Your task to perform on an android device: Search for Mexican restaurants on Maps Image 0: 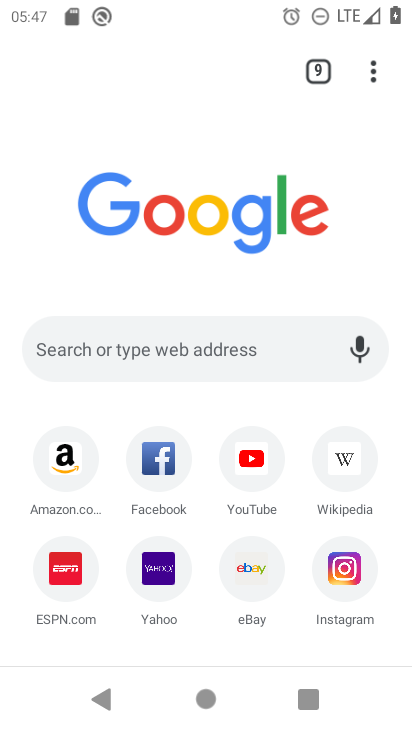
Step 0: press home button
Your task to perform on an android device: Search for Mexican restaurants on Maps Image 1: 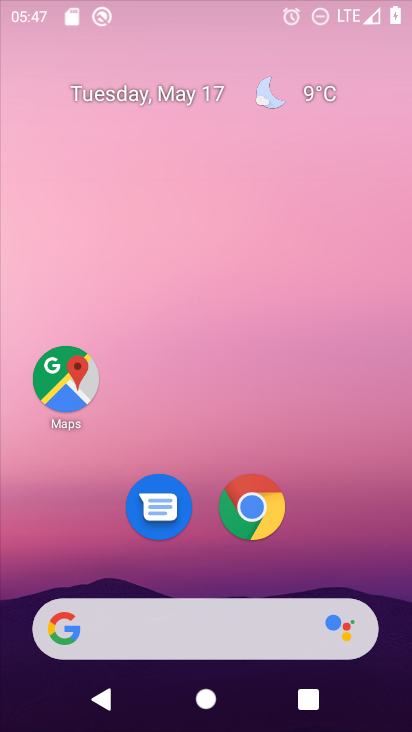
Step 1: click (66, 353)
Your task to perform on an android device: Search for Mexican restaurants on Maps Image 2: 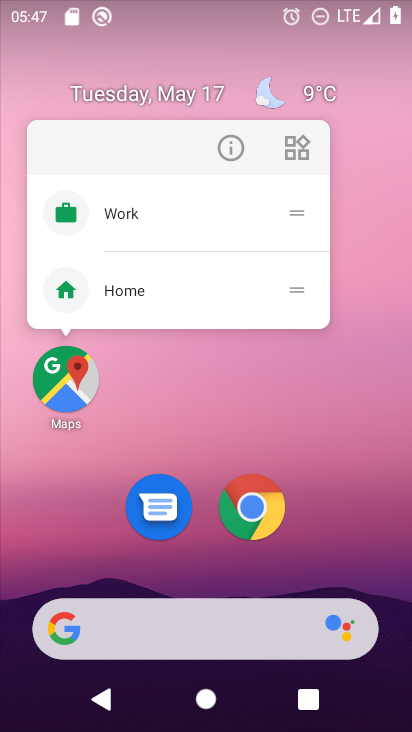
Step 2: click (63, 389)
Your task to perform on an android device: Search for Mexican restaurants on Maps Image 3: 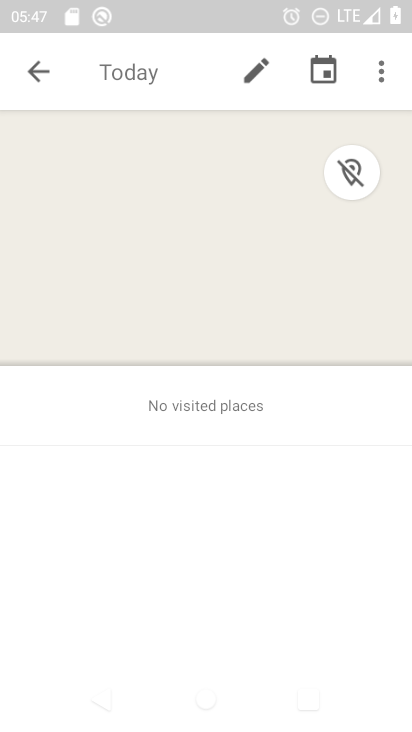
Step 3: click (29, 73)
Your task to perform on an android device: Search for Mexican restaurants on Maps Image 4: 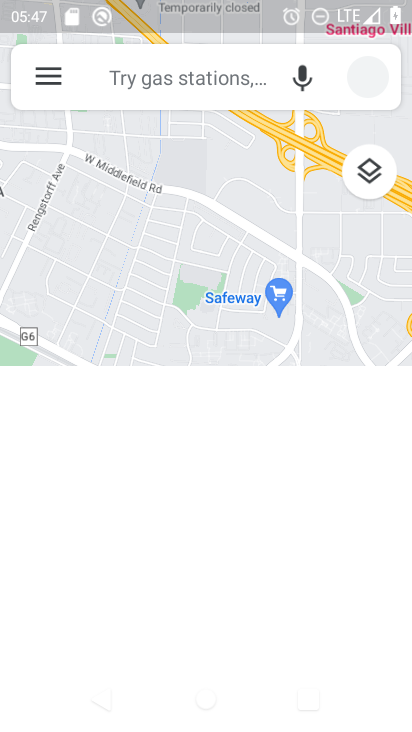
Step 4: click (127, 75)
Your task to perform on an android device: Search for Mexican restaurants on Maps Image 5: 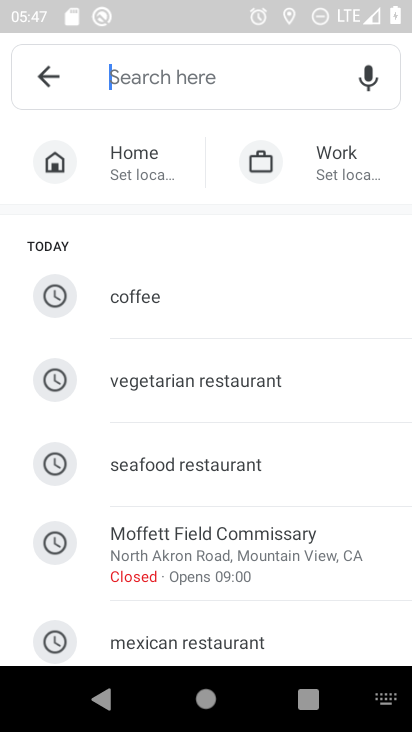
Step 5: click (236, 640)
Your task to perform on an android device: Search for Mexican restaurants on Maps Image 6: 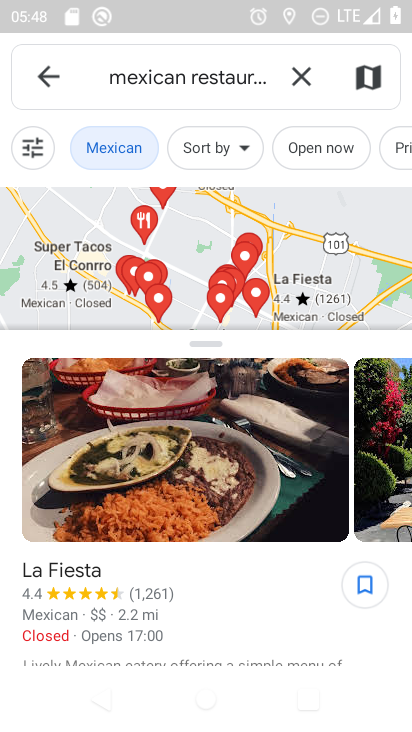
Step 6: task complete